Your task to perform on an android device: Add "macbook pro 15 inch" to the cart on newegg, then select checkout. Image 0: 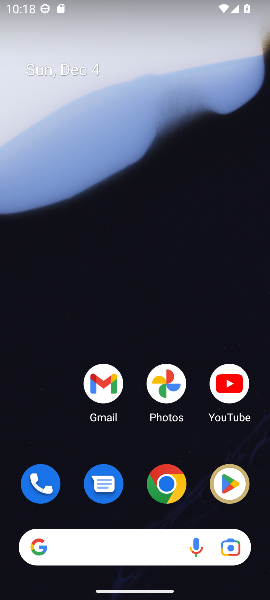
Step 0: click (170, 487)
Your task to perform on an android device: Add "macbook pro 15 inch" to the cart on newegg, then select checkout. Image 1: 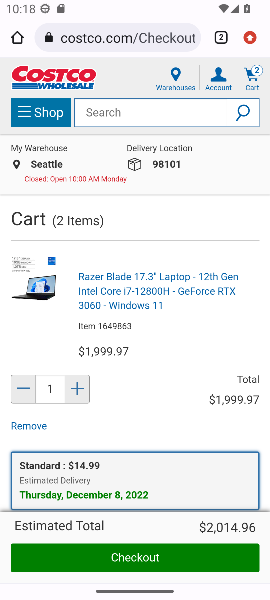
Step 1: click (116, 39)
Your task to perform on an android device: Add "macbook pro 15 inch" to the cart on newegg, then select checkout. Image 2: 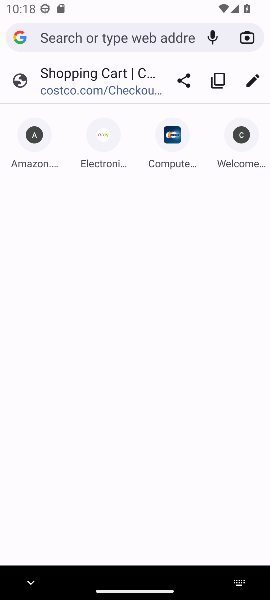
Step 2: click (160, 162)
Your task to perform on an android device: Add "macbook pro 15 inch" to the cart on newegg, then select checkout. Image 3: 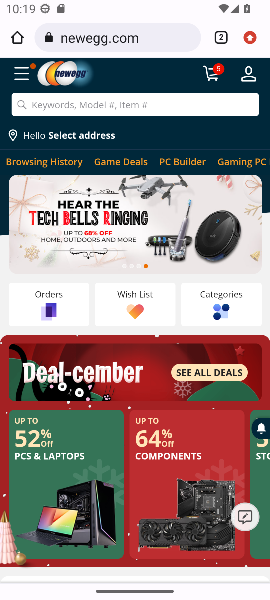
Step 3: click (50, 108)
Your task to perform on an android device: Add "macbook pro 15 inch" to the cart on newegg, then select checkout. Image 4: 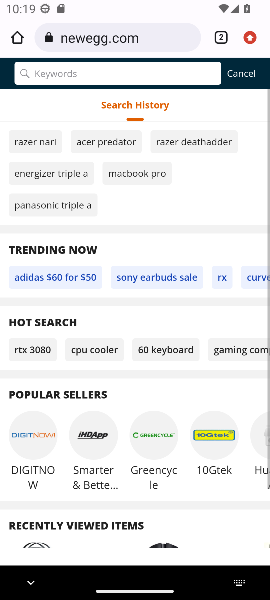
Step 4: type "macbook pro 15 inch"
Your task to perform on an android device: Add "macbook pro 15 inch" to the cart on newegg, then select checkout. Image 5: 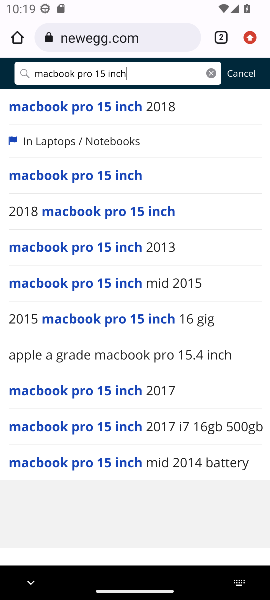
Step 5: click (109, 175)
Your task to perform on an android device: Add "macbook pro 15 inch" to the cart on newegg, then select checkout. Image 6: 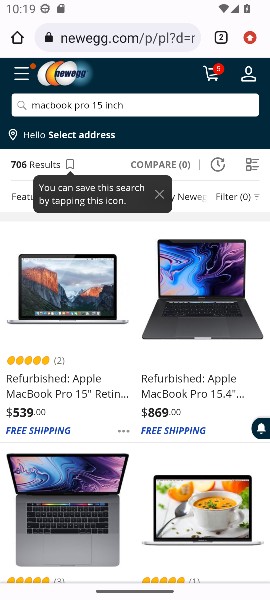
Step 6: click (43, 373)
Your task to perform on an android device: Add "macbook pro 15 inch" to the cart on newegg, then select checkout. Image 7: 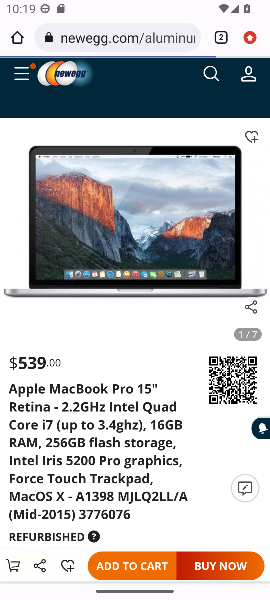
Step 7: click (126, 568)
Your task to perform on an android device: Add "macbook pro 15 inch" to the cart on newegg, then select checkout. Image 8: 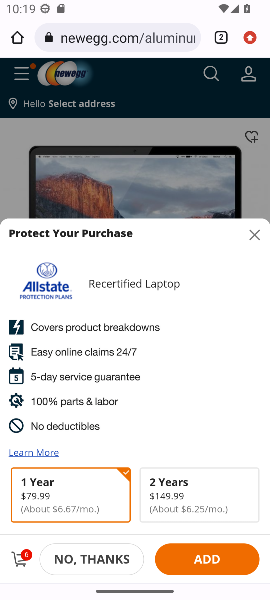
Step 8: click (13, 562)
Your task to perform on an android device: Add "macbook pro 15 inch" to the cart on newegg, then select checkout. Image 9: 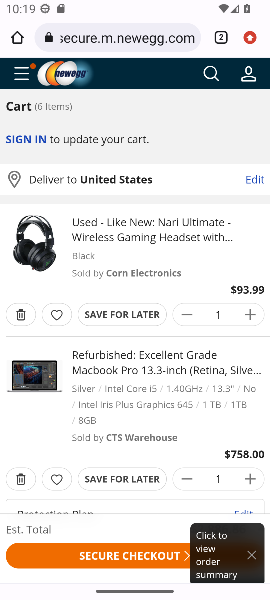
Step 9: click (25, 560)
Your task to perform on an android device: Add "macbook pro 15 inch" to the cart on newegg, then select checkout. Image 10: 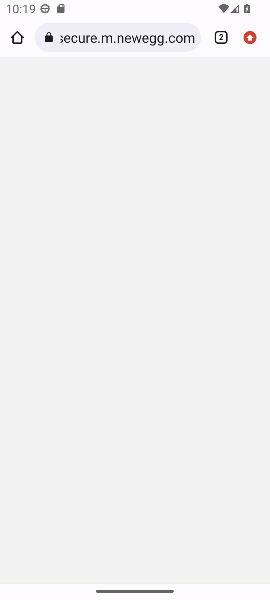
Step 10: click (25, 560)
Your task to perform on an android device: Add "macbook pro 15 inch" to the cart on newegg, then select checkout. Image 11: 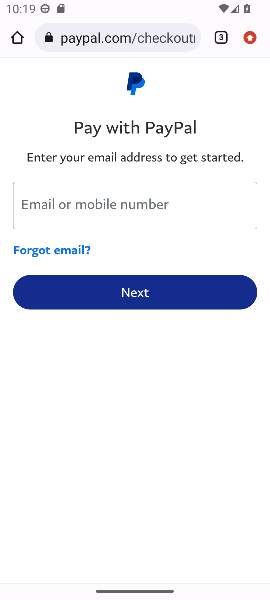
Step 11: task complete